Your task to perform on an android device: Open the phone app and click the voicemail tab. Image 0: 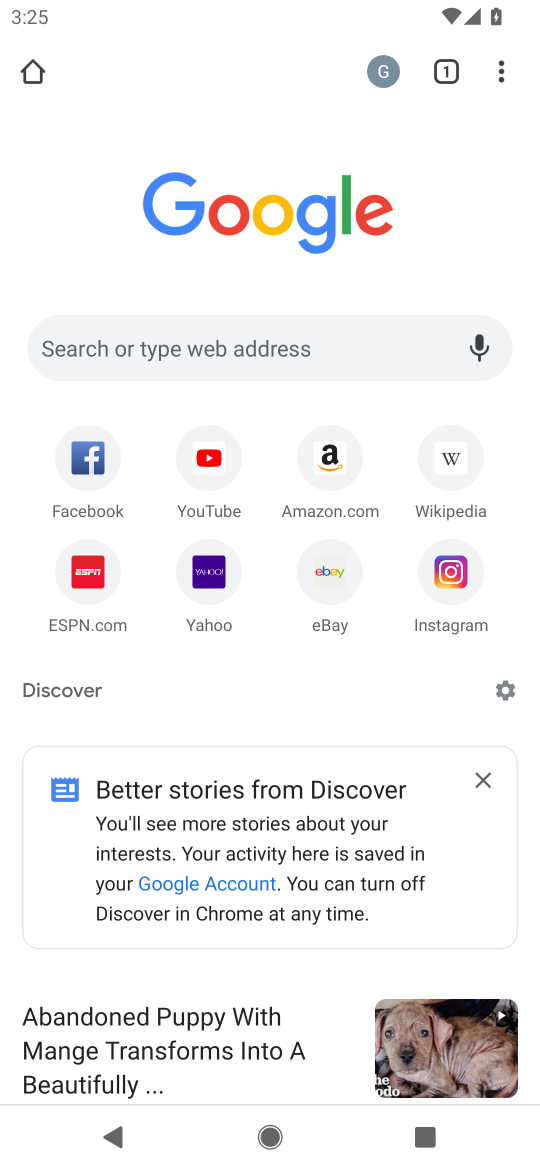
Step 0: press back button
Your task to perform on an android device: Open the phone app and click the voicemail tab. Image 1: 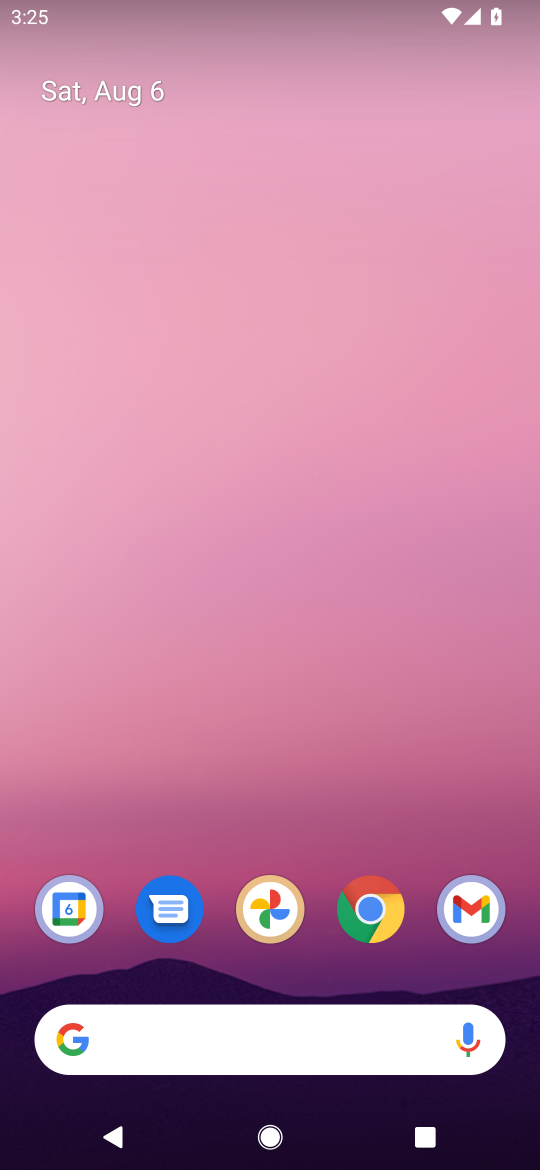
Step 1: drag from (260, 675) to (342, 76)
Your task to perform on an android device: Open the phone app and click the voicemail tab. Image 2: 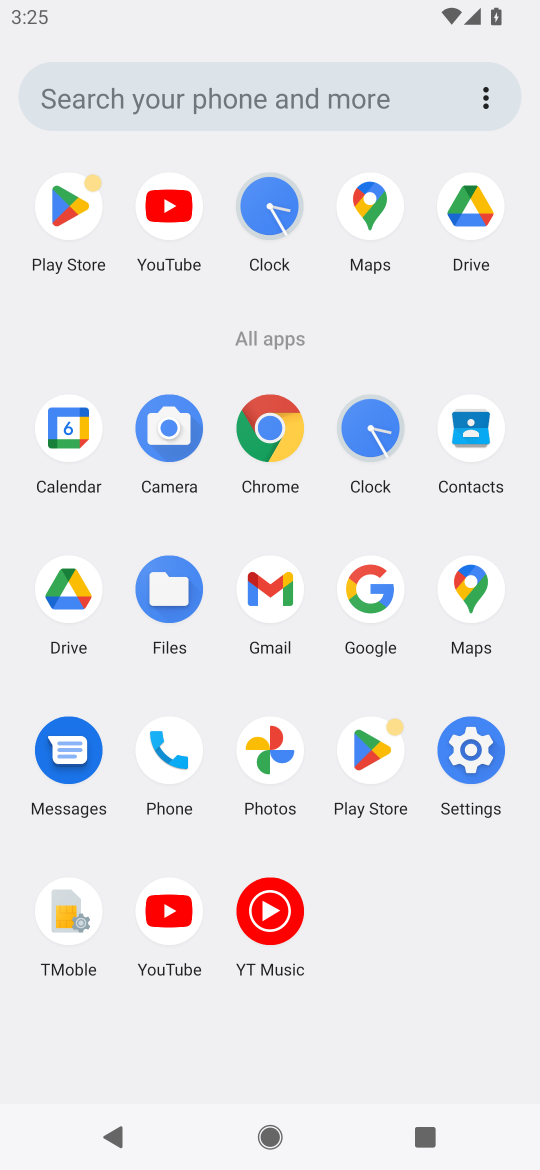
Step 2: click (178, 741)
Your task to perform on an android device: Open the phone app and click the voicemail tab. Image 3: 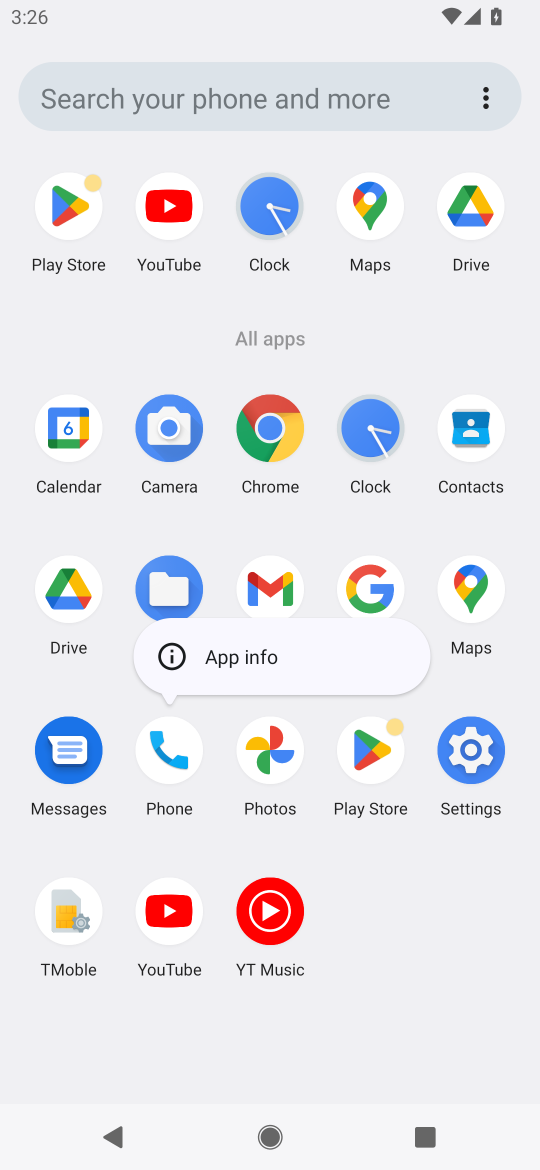
Step 3: click (173, 758)
Your task to perform on an android device: Open the phone app and click the voicemail tab. Image 4: 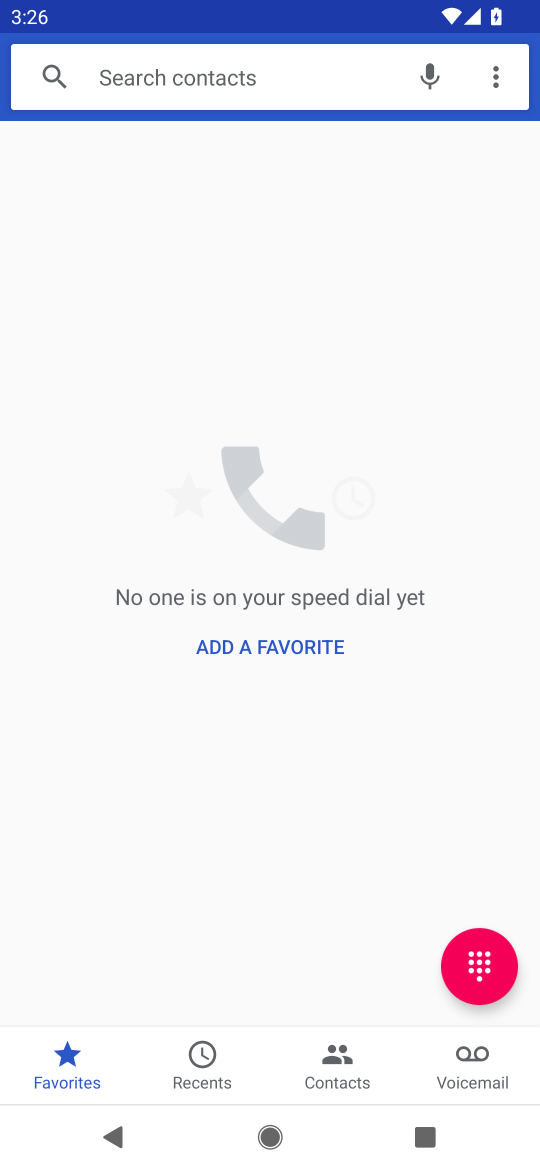
Step 4: click (496, 1085)
Your task to perform on an android device: Open the phone app and click the voicemail tab. Image 5: 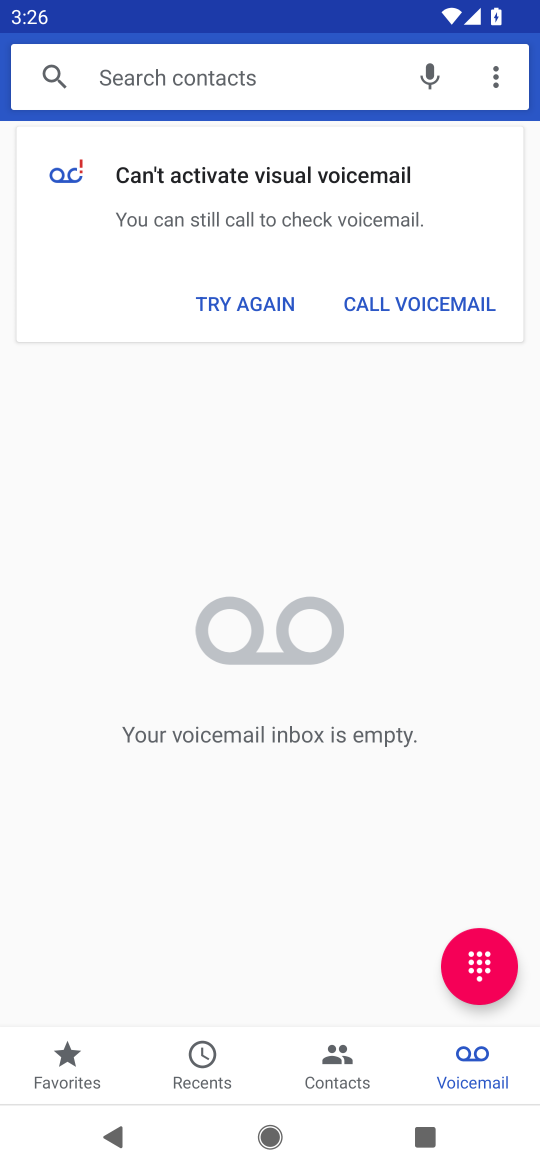
Step 5: task complete